Your task to perform on an android device: turn off location history Image 0: 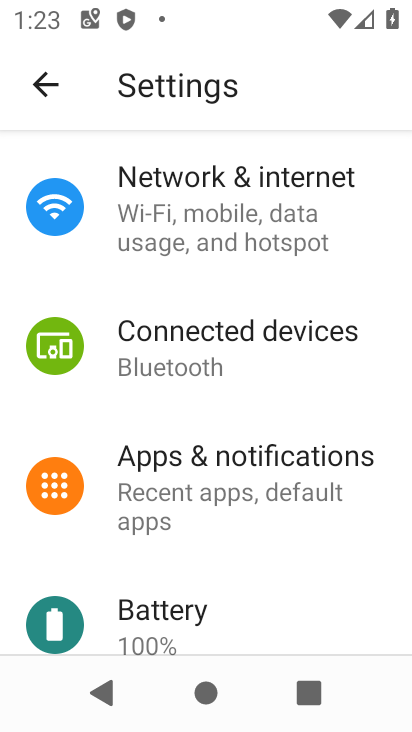
Step 0: click (237, 594)
Your task to perform on an android device: turn off location history Image 1: 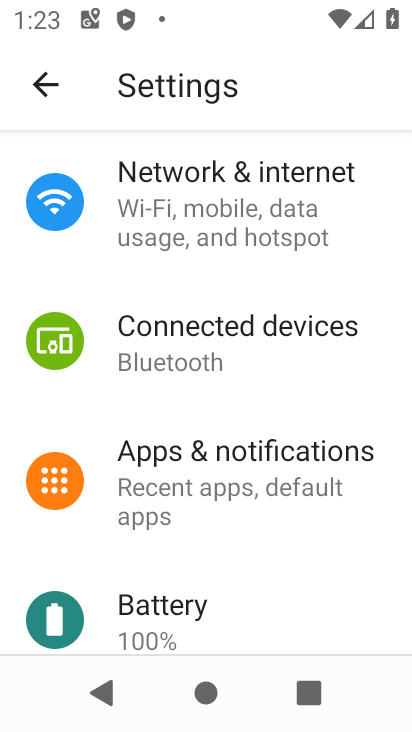
Step 1: press home button
Your task to perform on an android device: turn off location history Image 2: 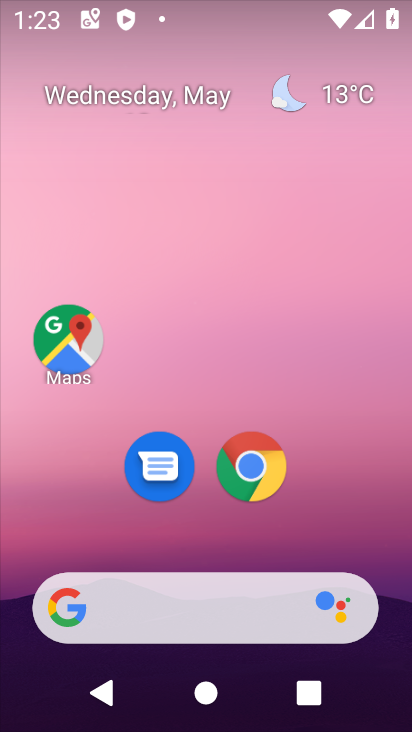
Step 2: drag from (209, 512) to (160, 122)
Your task to perform on an android device: turn off location history Image 3: 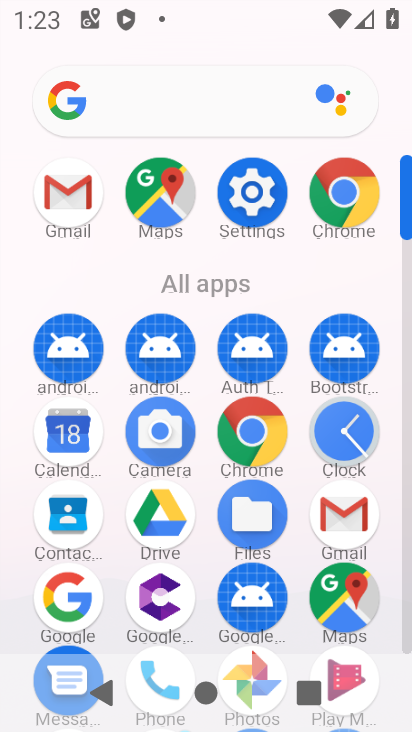
Step 3: click (346, 606)
Your task to perform on an android device: turn off location history Image 4: 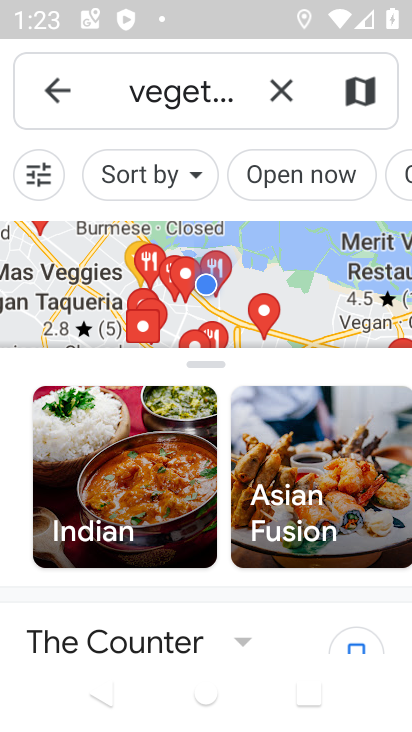
Step 4: click (49, 97)
Your task to perform on an android device: turn off location history Image 5: 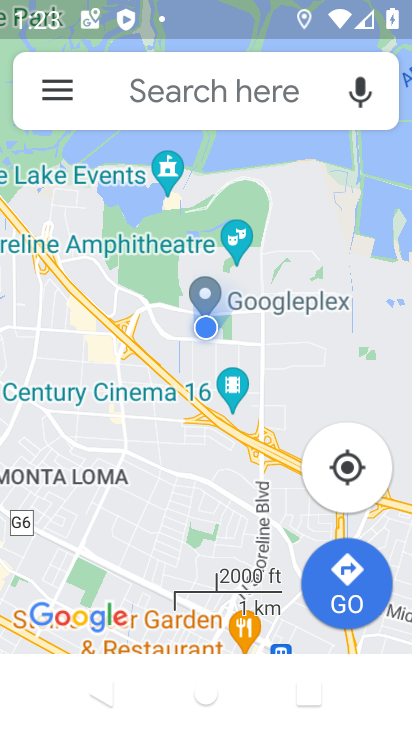
Step 5: click (49, 97)
Your task to perform on an android device: turn off location history Image 6: 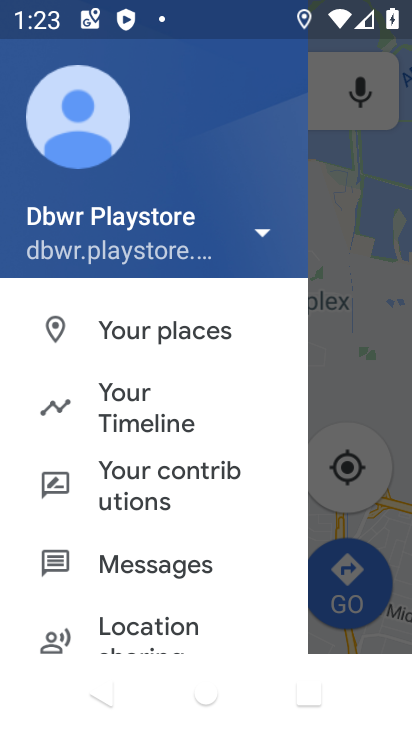
Step 6: drag from (119, 529) to (136, 179)
Your task to perform on an android device: turn off location history Image 7: 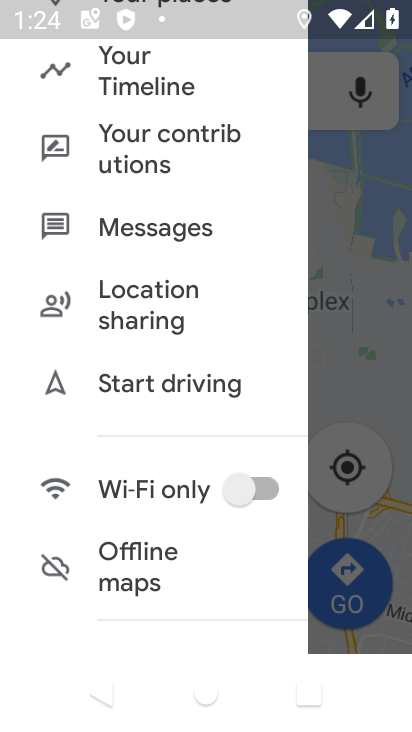
Step 7: drag from (139, 188) to (171, 421)
Your task to perform on an android device: turn off location history Image 8: 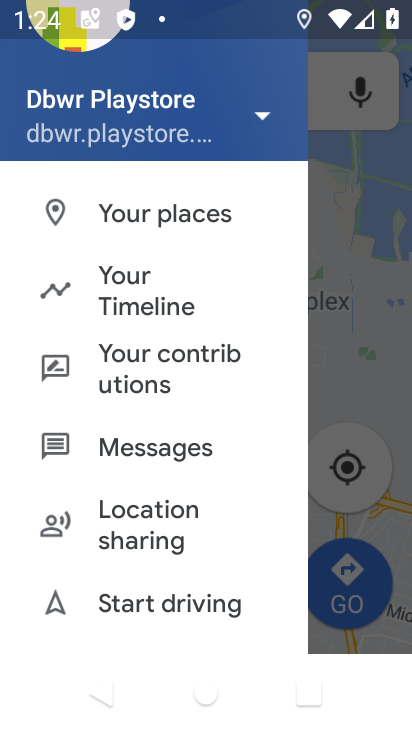
Step 8: click (159, 309)
Your task to perform on an android device: turn off location history Image 9: 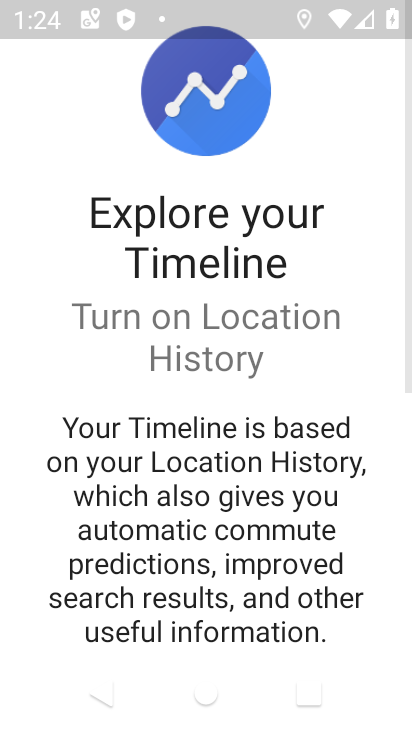
Step 9: drag from (226, 528) to (264, 173)
Your task to perform on an android device: turn off location history Image 10: 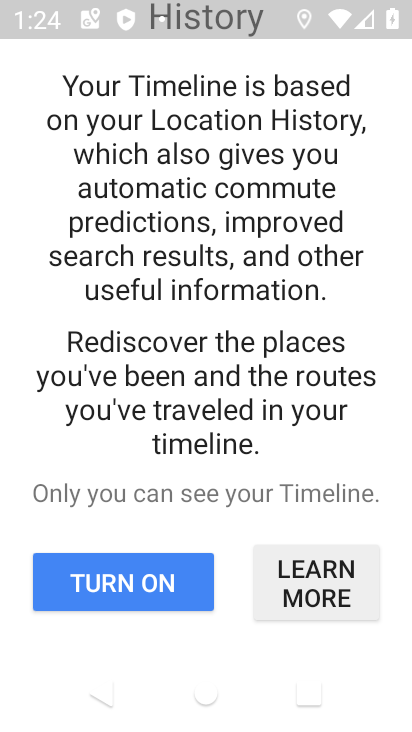
Step 10: drag from (212, 582) to (229, 355)
Your task to perform on an android device: turn off location history Image 11: 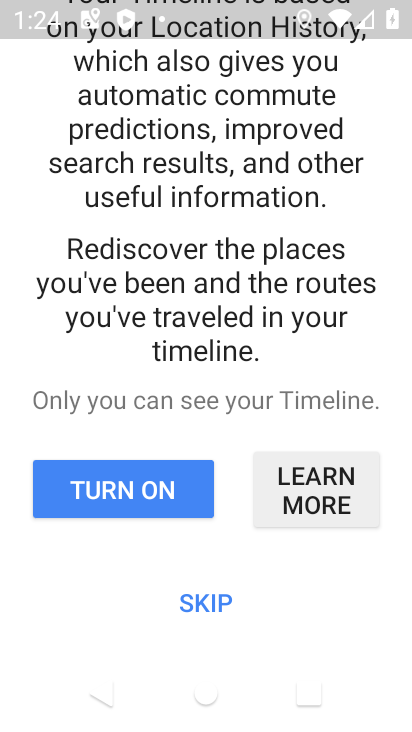
Step 11: click (208, 600)
Your task to perform on an android device: turn off location history Image 12: 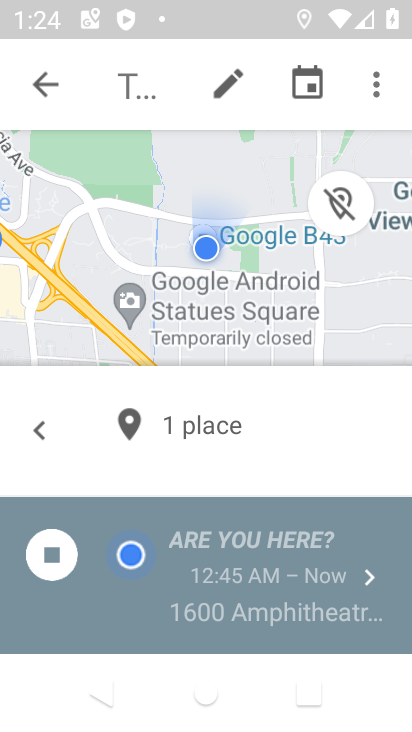
Step 12: click (374, 88)
Your task to perform on an android device: turn off location history Image 13: 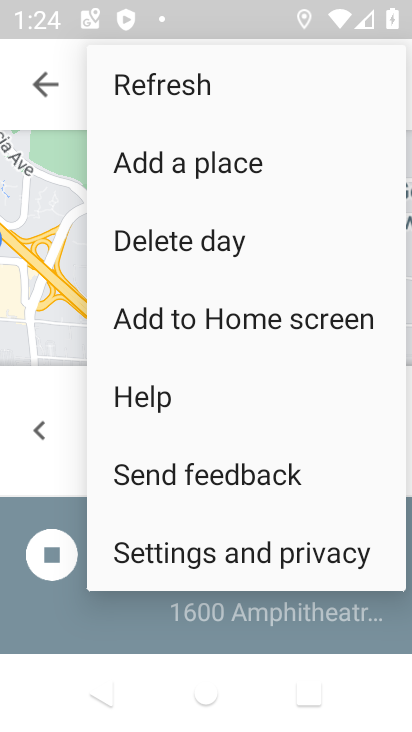
Step 13: click (205, 554)
Your task to perform on an android device: turn off location history Image 14: 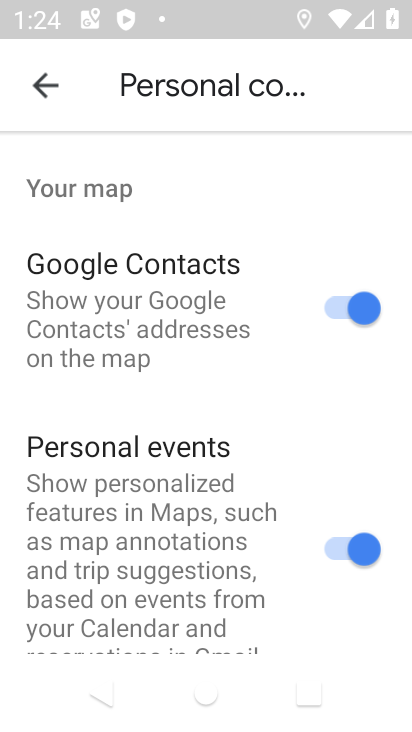
Step 14: drag from (237, 575) to (174, 251)
Your task to perform on an android device: turn off location history Image 15: 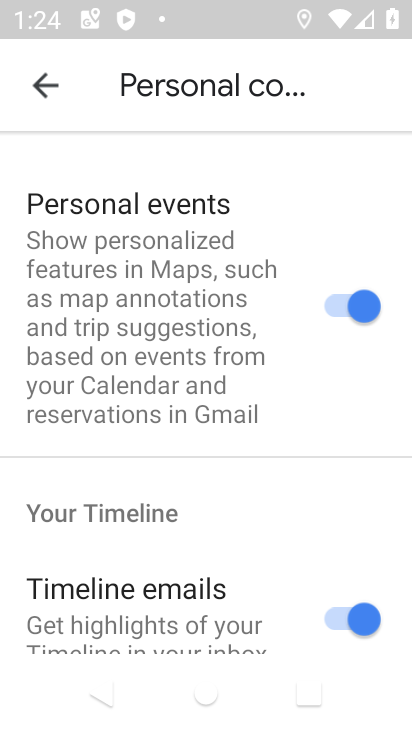
Step 15: drag from (218, 493) to (202, 261)
Your task to perform on an android device: turn off location history Image 16: 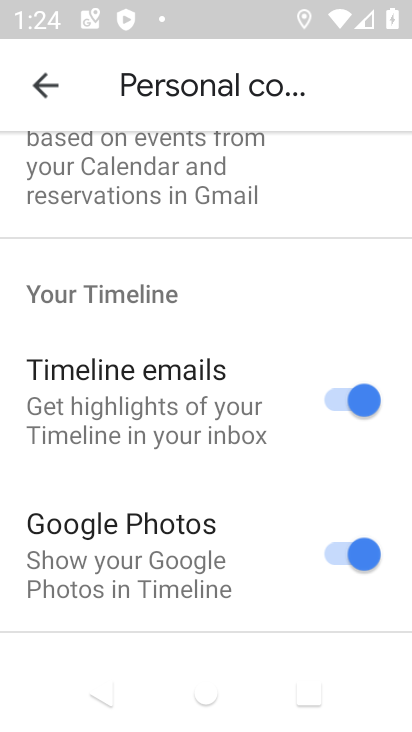
Step 16: drag from (157, 593) to (115, 254)
Your task to perform on an android device: turn off location history Image 17: 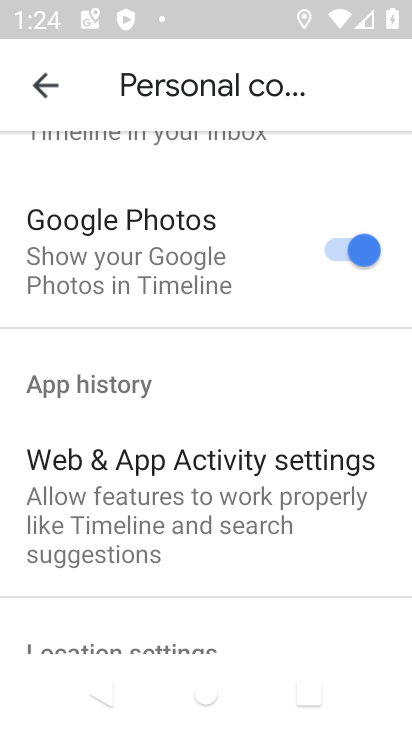
Step 17: drag from (123, 512) to (130, 245)
Your task to perform on an android device: turn off location history Image 18: 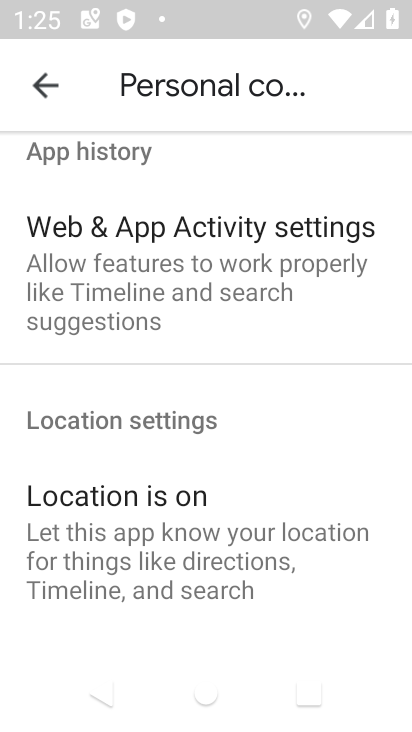
Step 18: drag from (212, 527) to (187, 399)
Your task to perform on an android device: turn off location history Image 19: 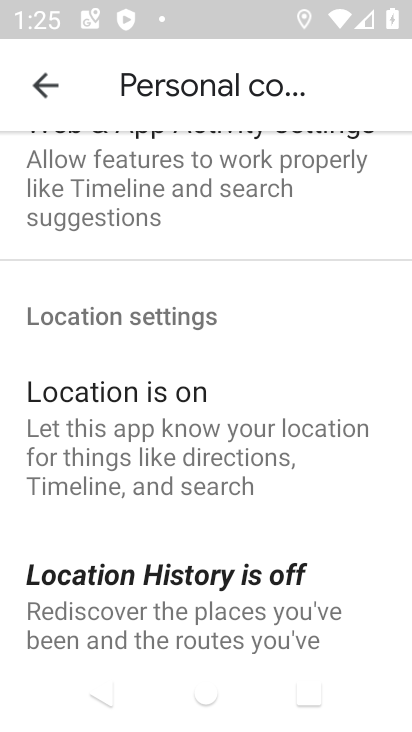
Step 19: click (145, 556)
Your task to perform on an android device: turn off location history Image 20: 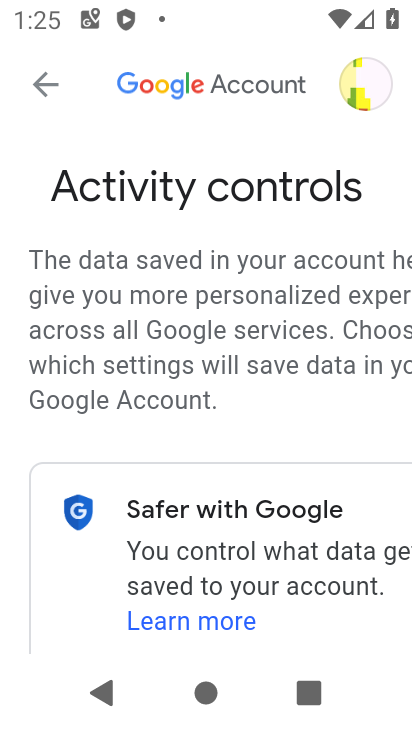
Step 20: task complete